Your task to perform on an android device: Is it going to rain tomorrow? Image 0: 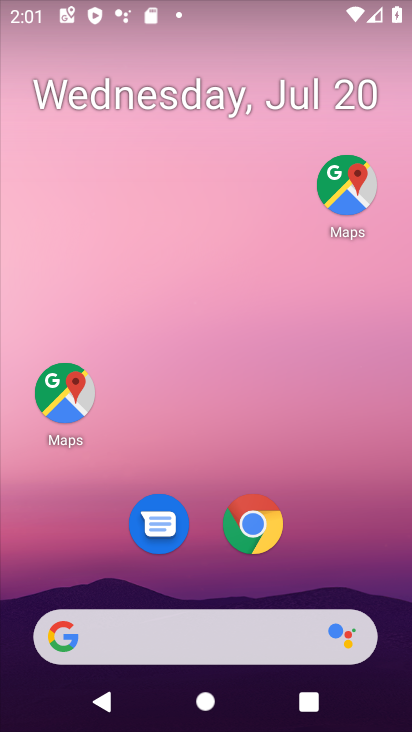
Step 0: click (230, 646)
Your task to perform on an android device: Is it going to rain tomorrow? Image 1: 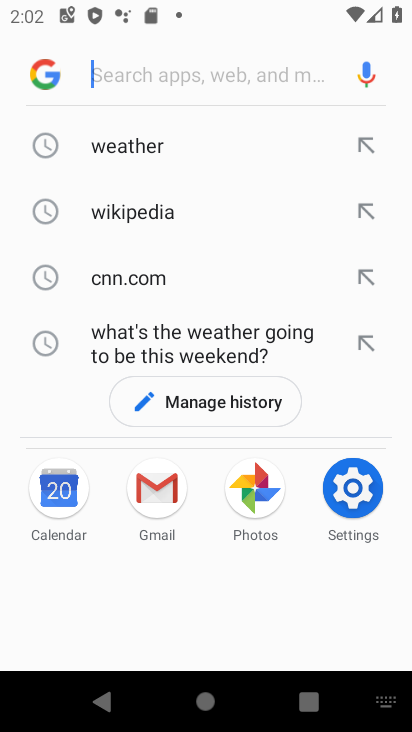
Step 1: click (138, 150)
Your task to perform on an android device: Is it going to rain tomorrow? Image 2: 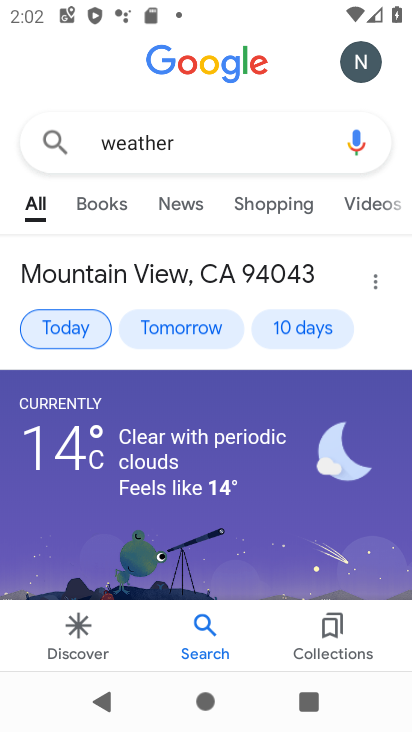
Step 2: click (84, 332)
Your task to perform on an android device: Is it going to rain tomorrow? Image 3: 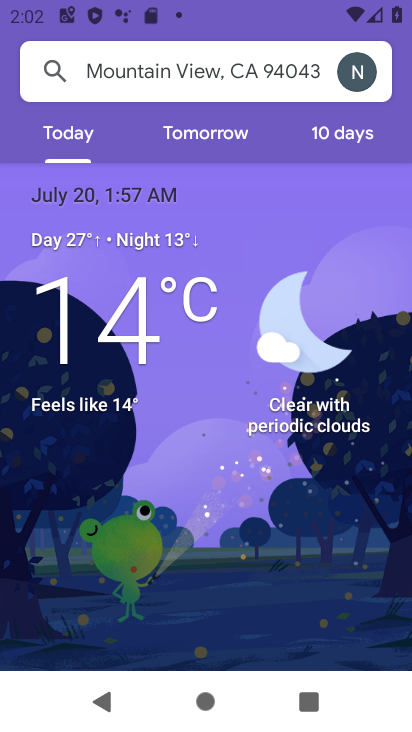
Step 3: click (227, 142)
Your task to perform on an android device: Is it going to rain tomorrow? Image 4: 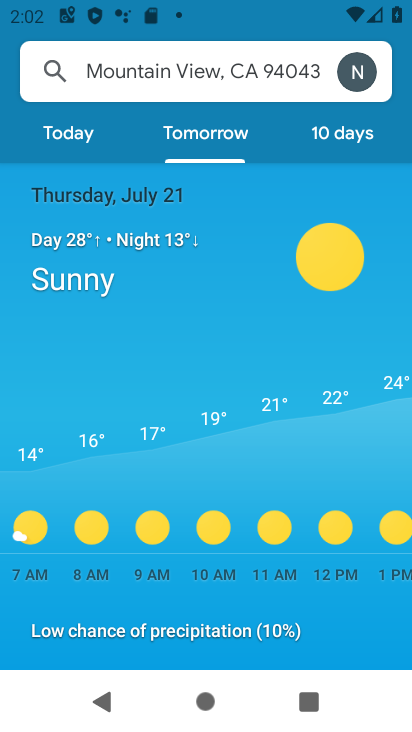
Step 4: task complete